Your task to perform on an android device: find snoozed emails in the gmail app Image 0: 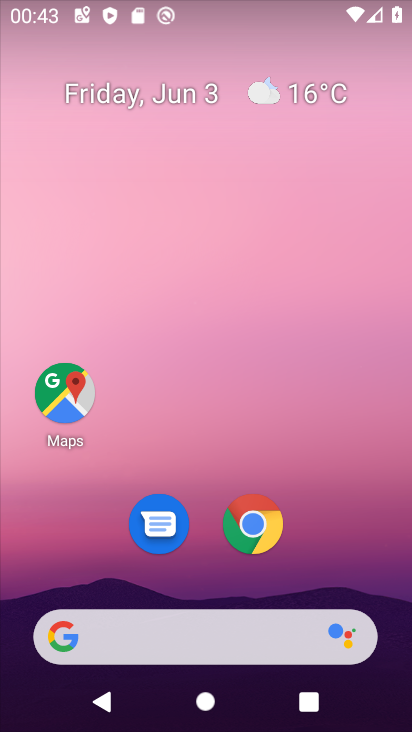
Step 0: drag from (331, 483) to (320, 19)
Your task to perform on an android device: find snoozed emails in the gmail app Image 1: 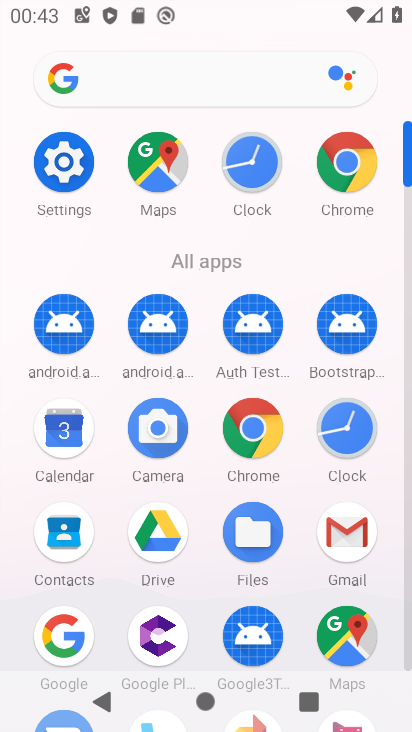
Step 1: click (354, 523)
Your task to perform on an android device: find snoozed emails in the gmail app Image 2: 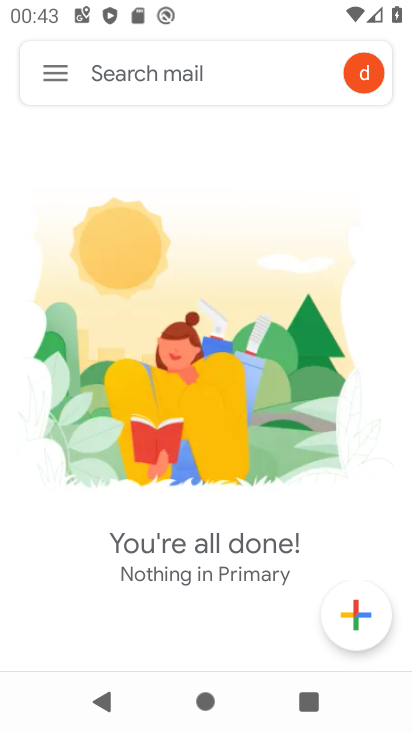
Step 2: click (53, 70)
Your task to perform on an android device: find snoozed emails in the gmail app Image 3: 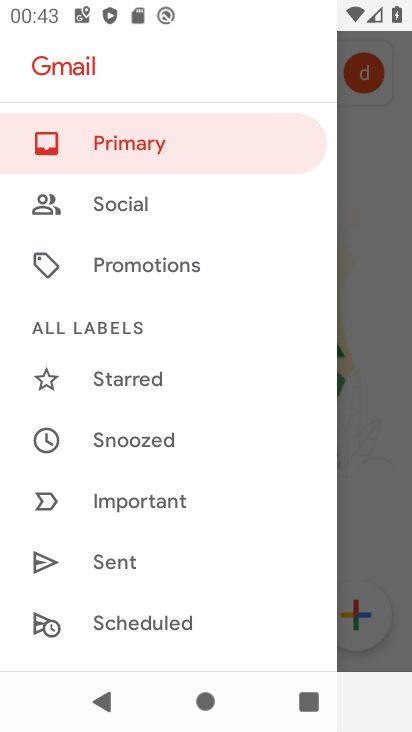
Step 3: click (146, 433)
Your task to perform on an android device: find snoozed emails in the gmail app Image 4: 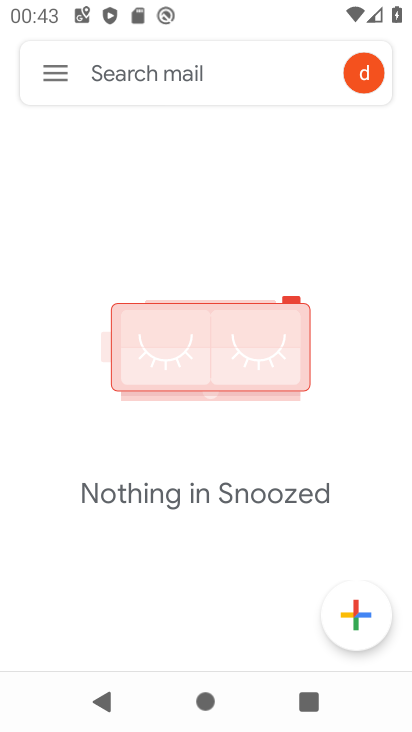
Step 4: task complete